Your task to perform on an android device: Open notification settings Image 0: 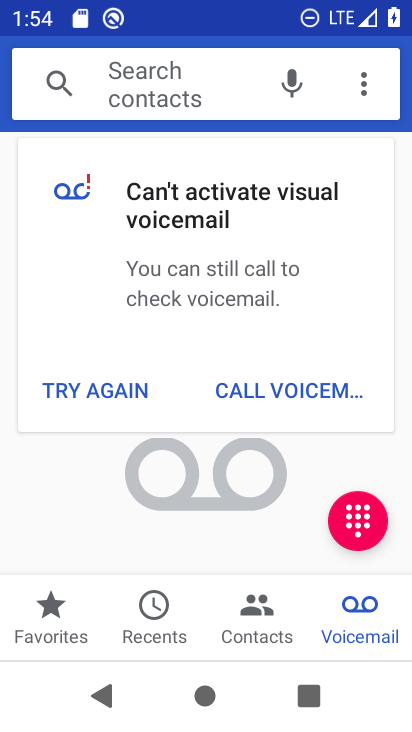
Step 0: press home button
Your task to perform on an android device: Open notification settings Image 1: 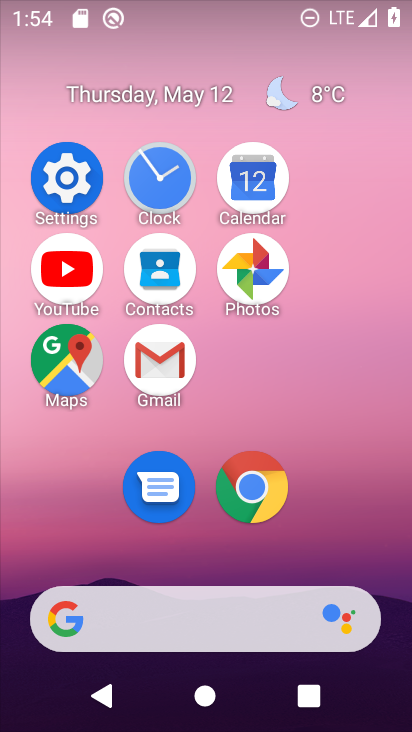
Step 1: click (79, 181)
Your task to perform on an android device: Open notification settings Image 2: 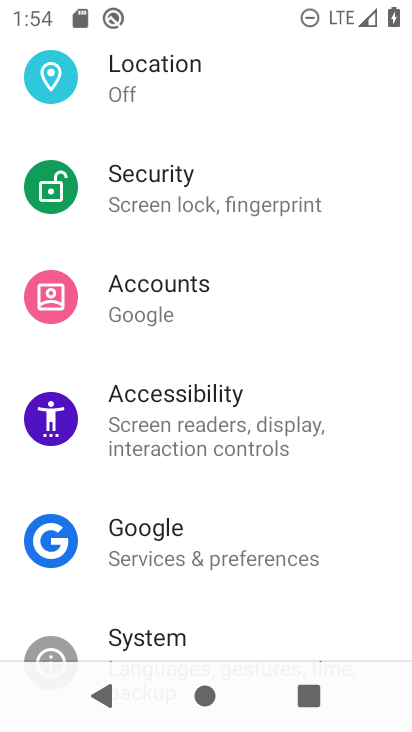
Step 2: drag from (294, 136) to (278, 619)
Your task to perform on an android device: Open notification settings Image 3: 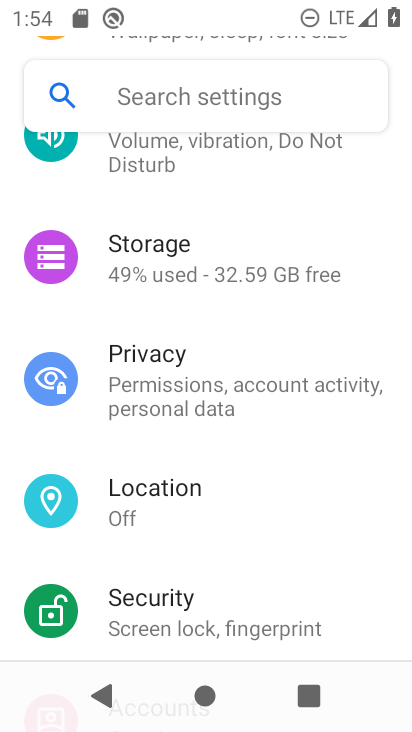
Step 3: drag from (311, 201) to (349, 571)
Your task to perform on an android device: Open notification settings Image 4: 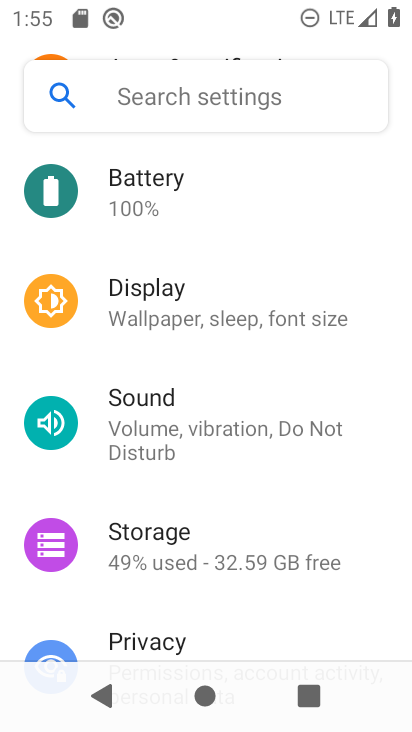
Step 4: drag from (290, 228) to (281, 588)
Your task to perform on an android device: Open notification settings Image 5: 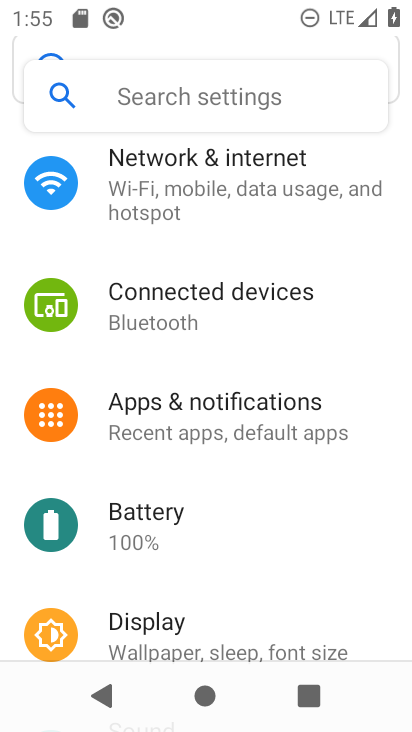
Step 5: click (251, 402)
Your task to perform on an android device: Open notification settings Image 6: 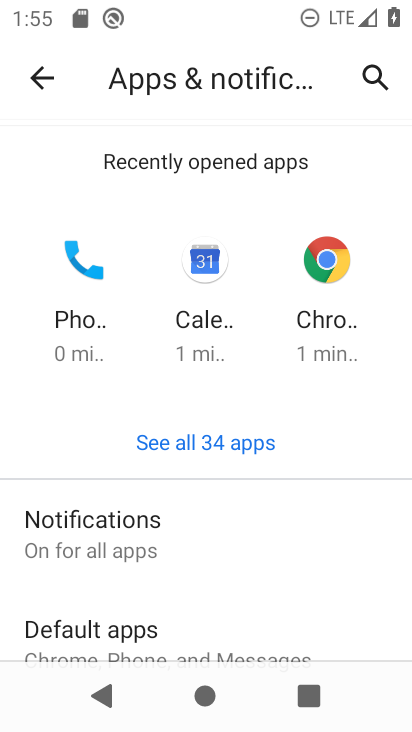
Step 6: task complete